Your task to perform on an android device: check storage Image 0: 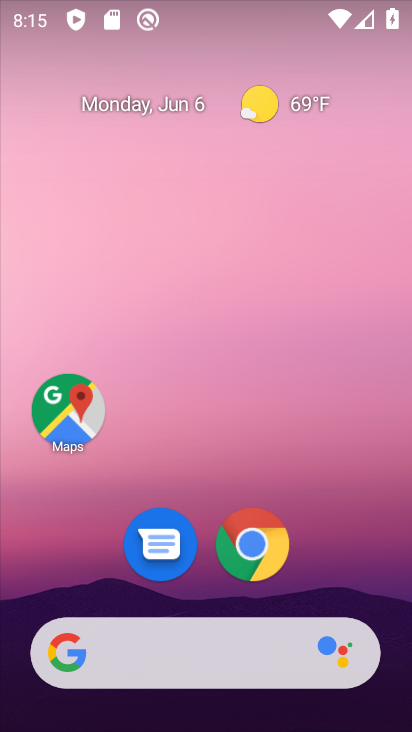
Step 0: drag from (224, 546) to (237, 275)
Your task to perform on an android device: check storage Image 1: 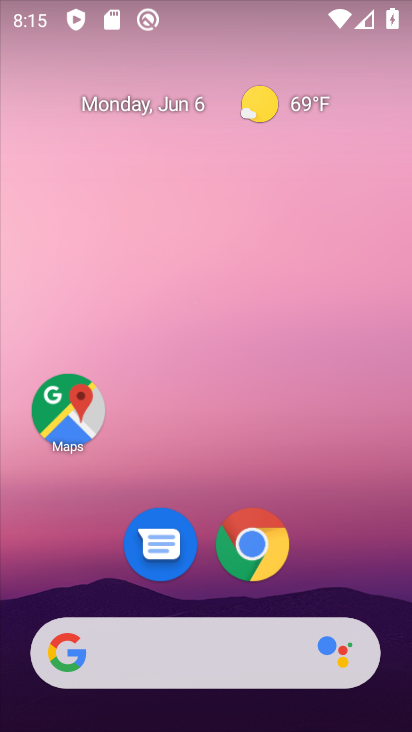
Step 1: drag from (201, 593) to (299, 37)
Your task to perform on an android device: check storage Image 2: 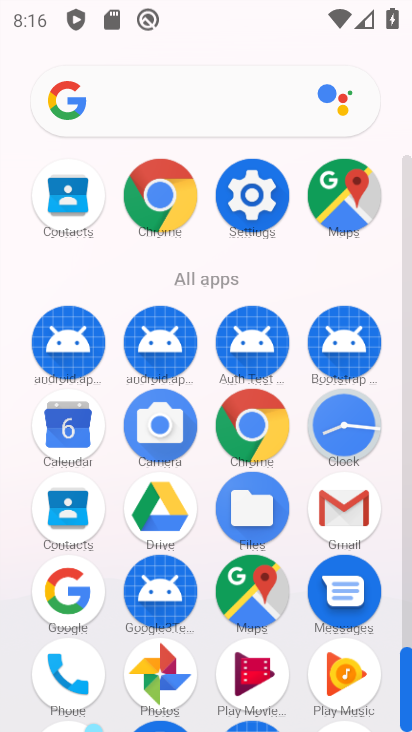
Step 2: click (246, 196)
Your task to perform on an android device: check storage Image 3: 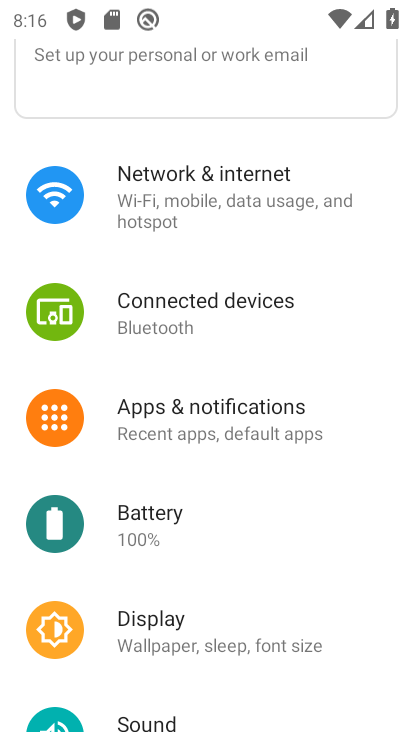
Step 3: drag from (153, 660) to (256, 235)
Your task to perform on an android device: check storage Image 4: 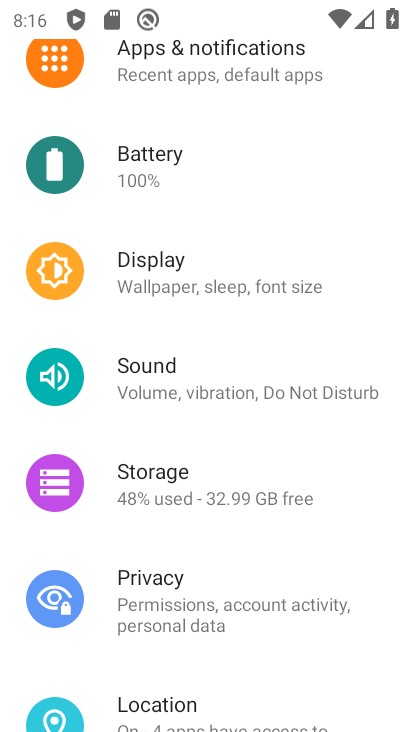
Step 4: click (168, 485)
Your task to perform on an android device: check storage Image 5: 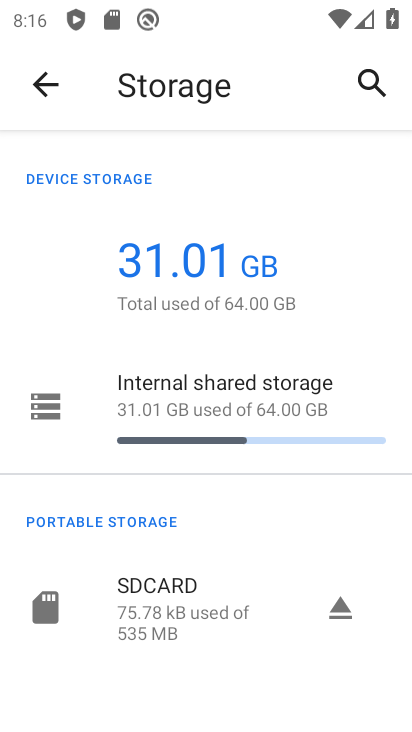
Step 5: task complete